Your task to perform on an android device: Search for "bose soundsport free" on walmart.com, select the first entry, and add it to the cart. Image 0: 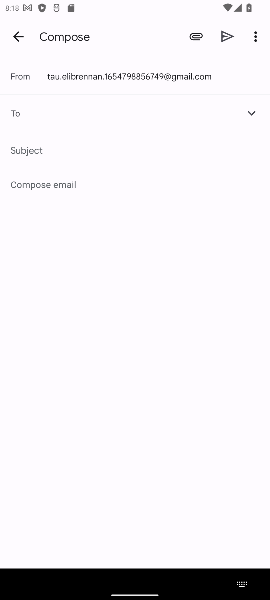
Step 0: press home button
Your task to perform on an android device: Search for "bose soundsport free" on walmart.com, select the first entry, and add it to the cart. Image 1: 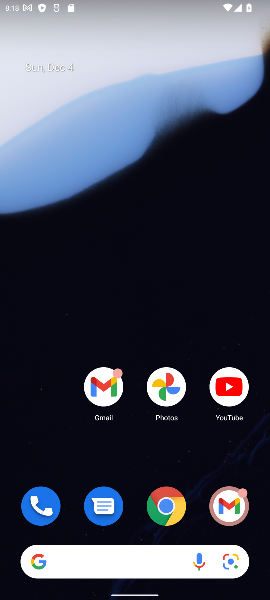
Step 1: click (172, 517)
Your task to perform on an android device: Search for "bose soundsport free" on walmart.com, select the first entry, and add it to the cart. Image 2: 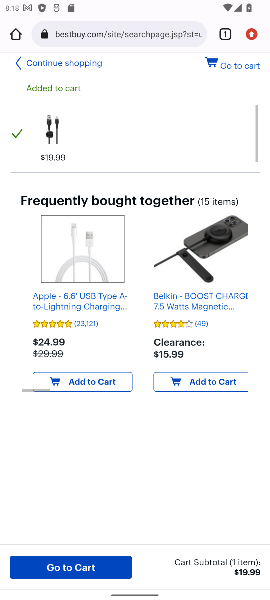
Step 2: click (115, 25)
Your task to perform on an android device: Search for "bose soundsport free" on walmart.com, select the first entry, and add it to the cart. Image 3: 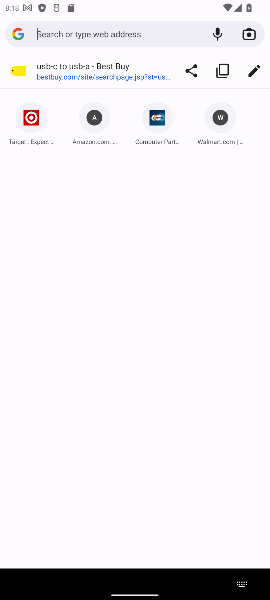
Step 3: type "walmart"
Your task to perform on an android device: Search for "bose soundsport free" on walmart.com, select the first entry, and add it to the cart. Image 4: 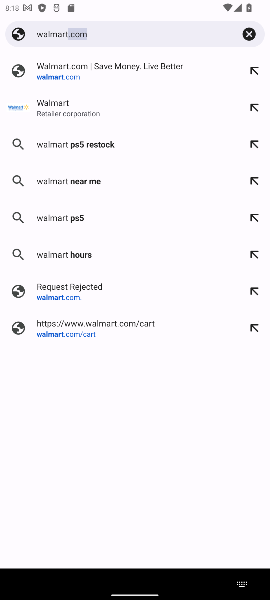
Step 4: click (40, 103)
Your task to perform on an android device: Search for "bose soundsport free" on walmart.com, select the first entry, and add it to the cart. Image 5: 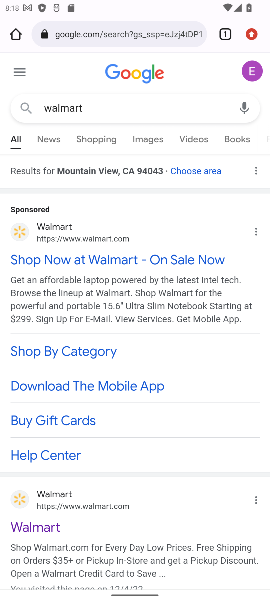
Step 5: click (35, 519)
Your task to perform on an android device: Search for "bose soundsport free" on walmart.com, select the first entry, and add it to the cart. Image 6: 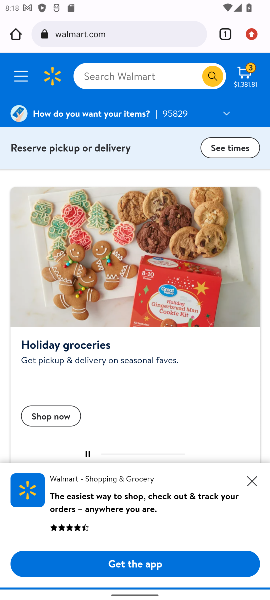
Step 6: click (208, 80)
Your task to perform on an android device: Search for "bose soundsport free" on walmart.com, select the first entry, and add it to the cart. Image 7: 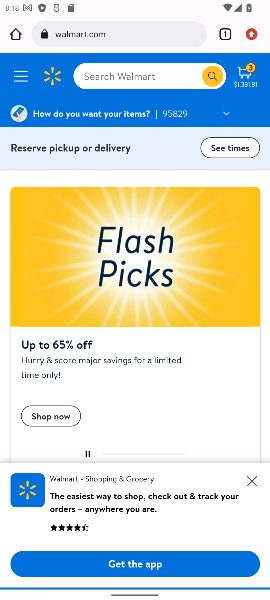
Step 7: click (82, 76)
Your task to perform on an android device: Search for "bose soundsport free" on walmart.com, select the first entry, and add it to the cart. Image 8: 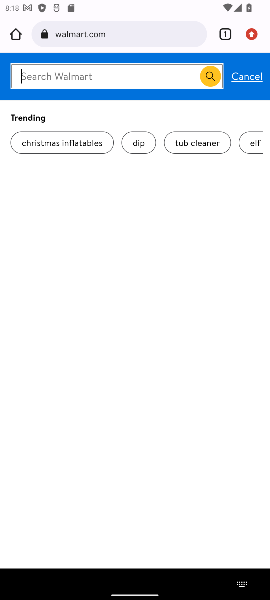
Step 8: type "bose soundsport free"
Your task to perform on an android device: Search for "bose soundsport free" on walmart.com, select the first entry, and add it to the cart. Image 9: 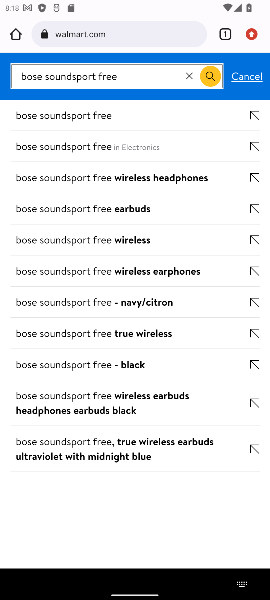
Step 9: click (87, 117)
Your task to perform on an android device: Search for "bose soundsport free" on walmart.com, select the first entry, and add it to the cart. Image 10: 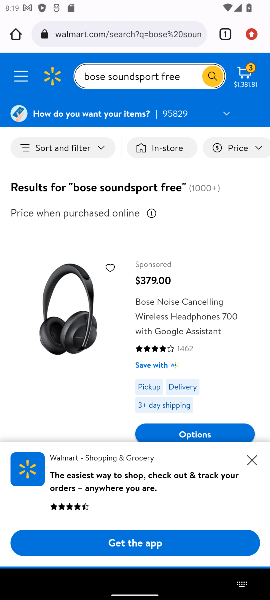
Step 10: task complete